Your task to perform on an android device: open a new tab in the chrome app Image 0: 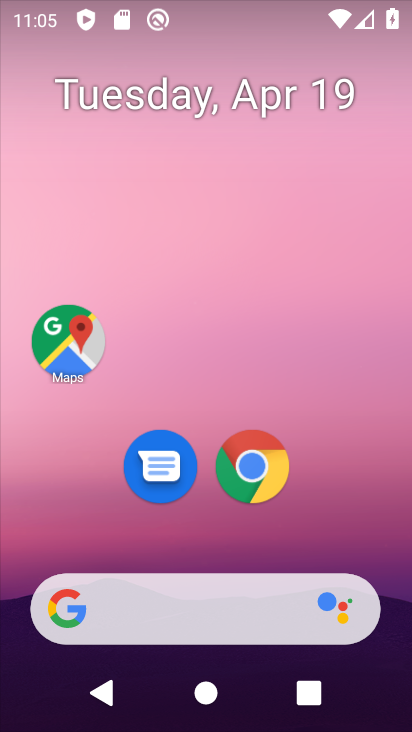
Step 0: click (253, 468)
Your task to perform on an android device: open a new tab in the chrome app Image 1: 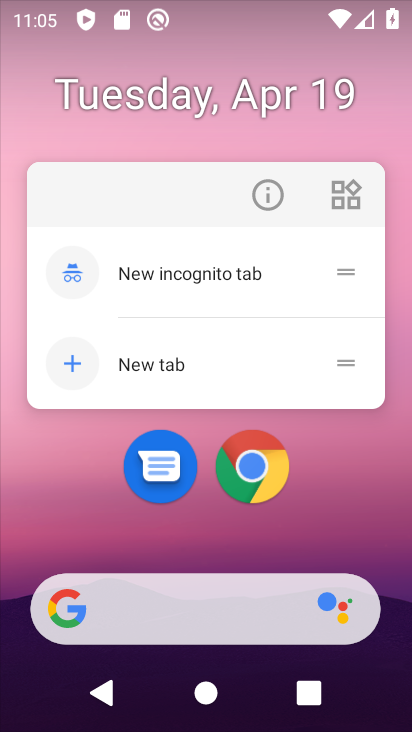
Step 1: click (254, 469)
Your task to perform on an android device: open a new tab in the chrome app Image 2: 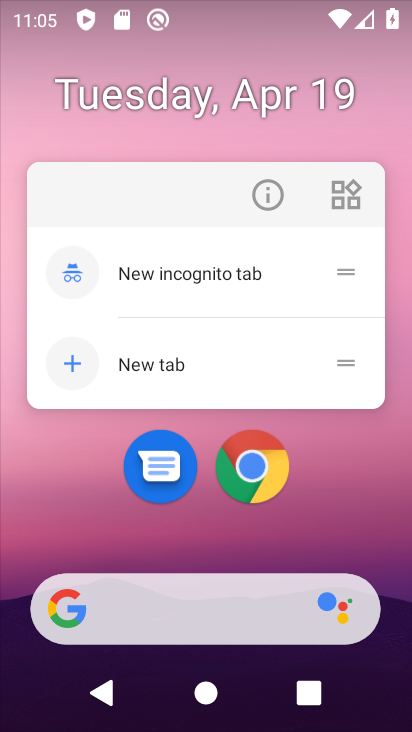
Step 2: click (263, 480)
Your task to perform on an android device: open a new tab in the chrome app Image 3: 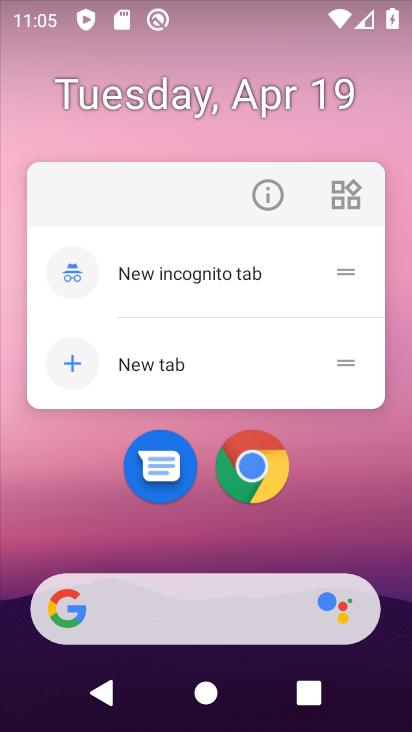
Step 3: click (262, 468)
Your task to perform on an android device: open a new tab in the chrome app Image 4: 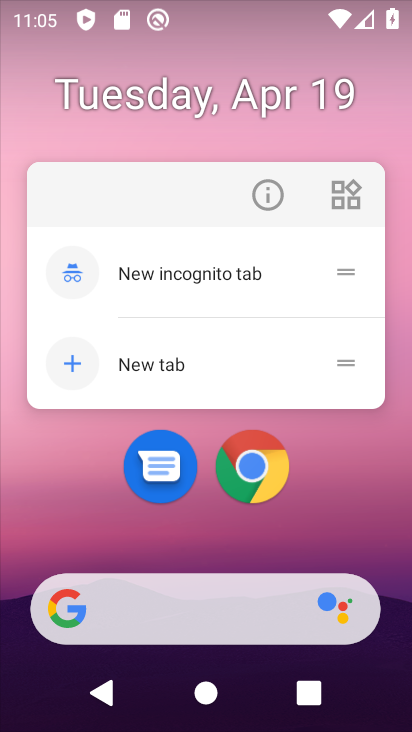
Step 4: click (264, 461)
Your task to perform on an android device: open a new tab in the chrome app Image 5: 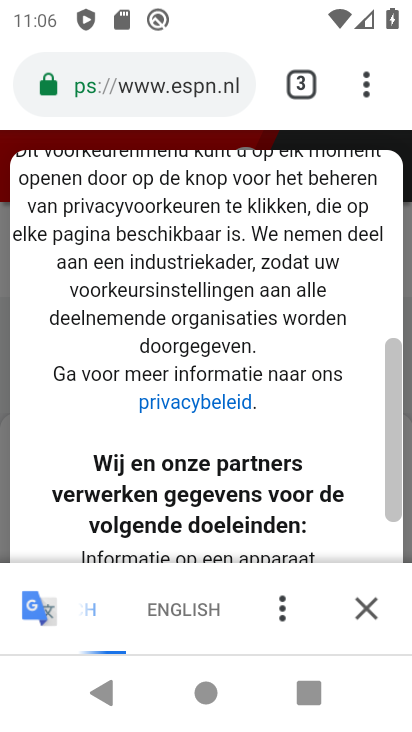
Step 5: click (383, 84)
Your task to perform on an android device: open a new tab in the chrome app Image 6: 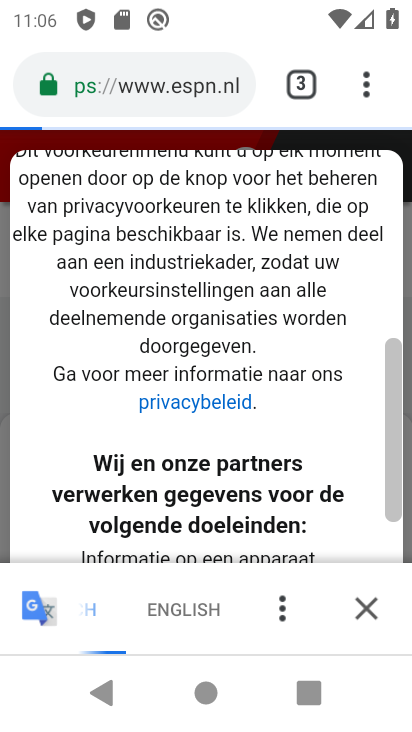
Step 6: task complete